Your task to perform on an android device: open chrome privacy settings Image 0: 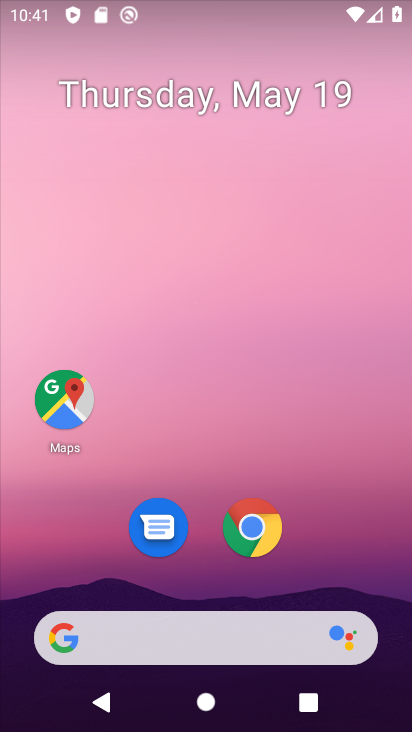
Step 0: click (257, 523)
Your task to perform on an android device: open chrome privacy settings Image 1: 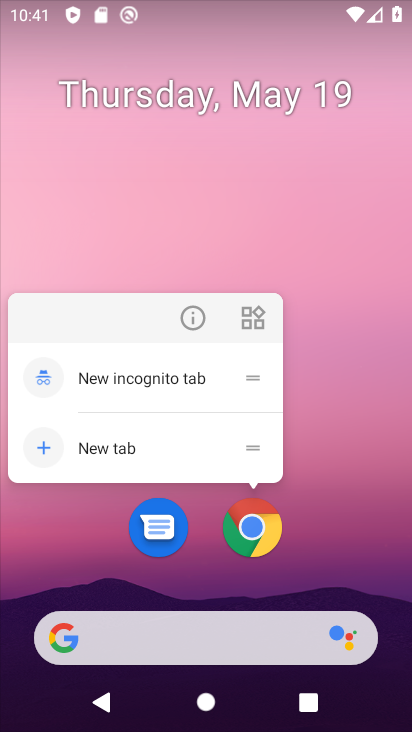
Step 1: click (272, 516)
Your task to perform on an android device: open chrome privacy settings Image 2: 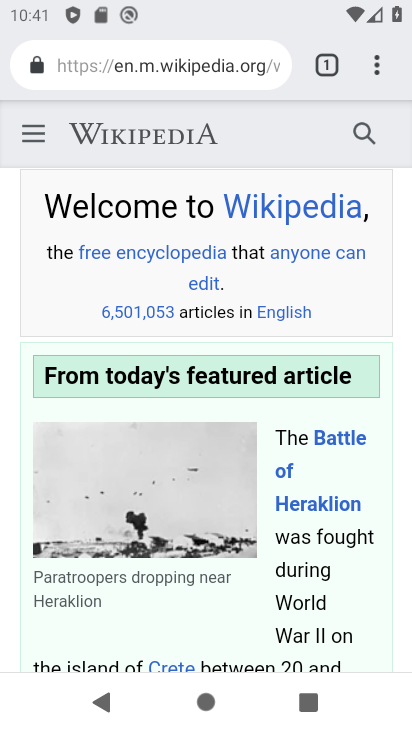
Step 2: click (373, 73)
Your task to perform on an android device: open chrome privacy settings Image 3: 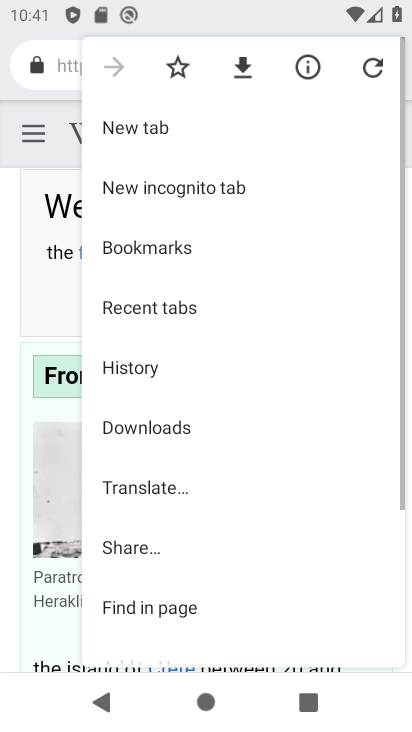
Step 3: drag from (175, 600) to (233, 293)
Your task to perform on an android device: open chrome privacy settings Image 4: 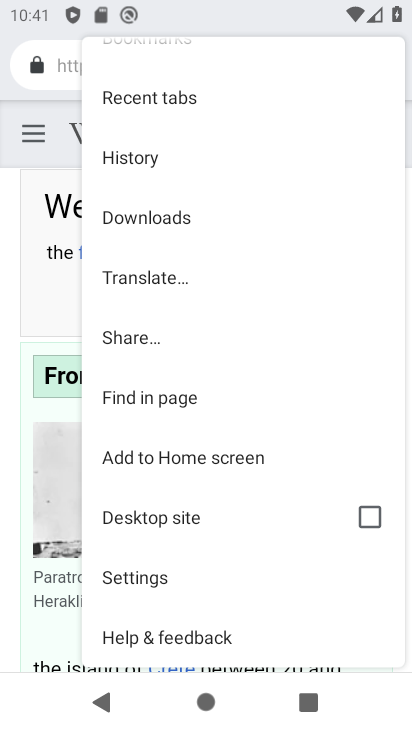
Step 4: click (167, 581)
Your task to perform on an android device: open chrome privacy settings Image 5: 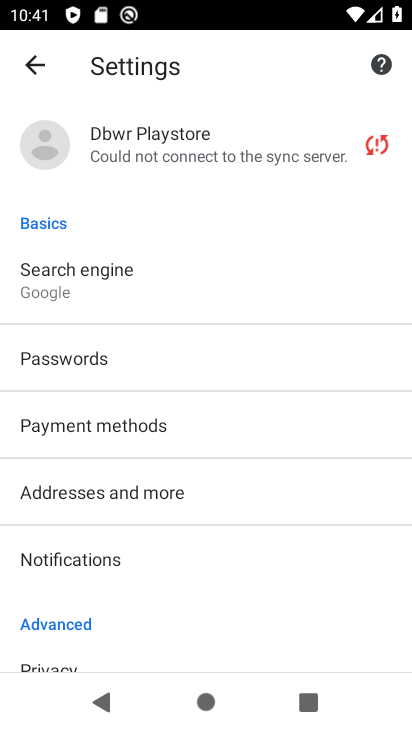
Step 5: drag from (154, 580) to (167, 336)
Your task to perform on an android device: open chrome privacy settings Image 6: 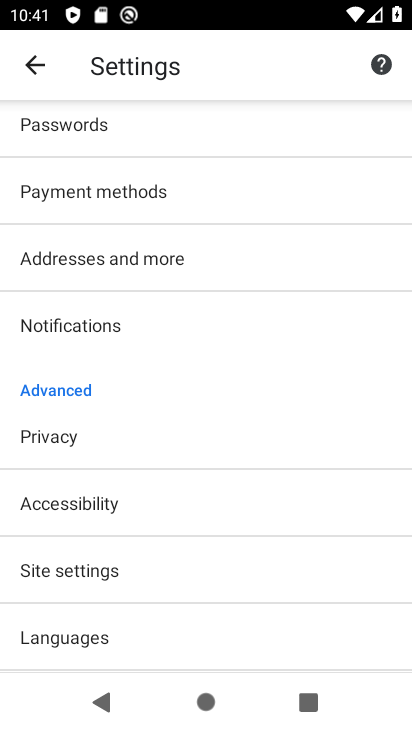
Step 6: click (82, 453)
Your task to perform on an android device: open chrome privacy settings Image 7: 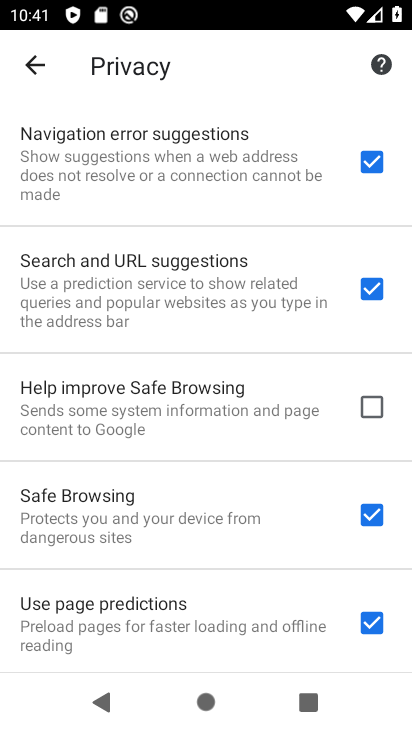
Step 7: task complete